Your task to perform on an android device: Go to notification settings Image 0: 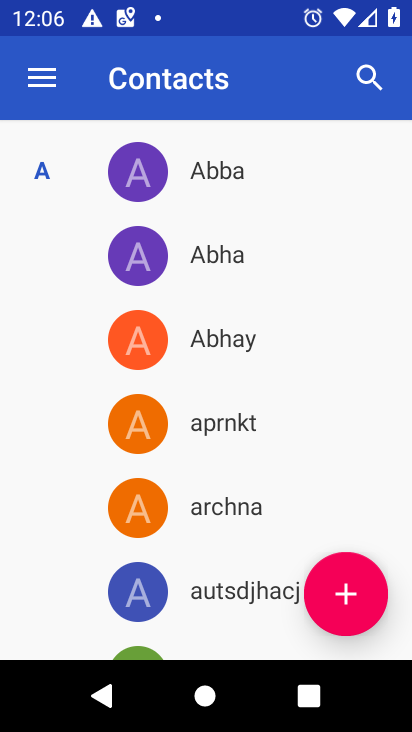
Step 0: press back button
Your task to perform on an android device: Go to notification settings Image 1: 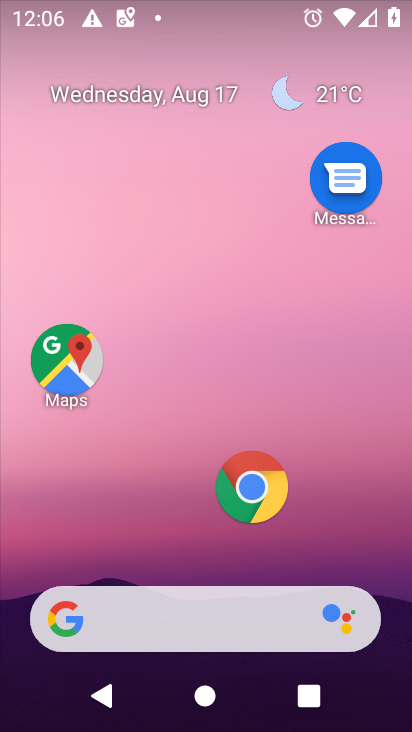
Step 1: drag from (147, 492) to (242, 38)
Your task to perform on an android device: Go to notification settings Image 2: 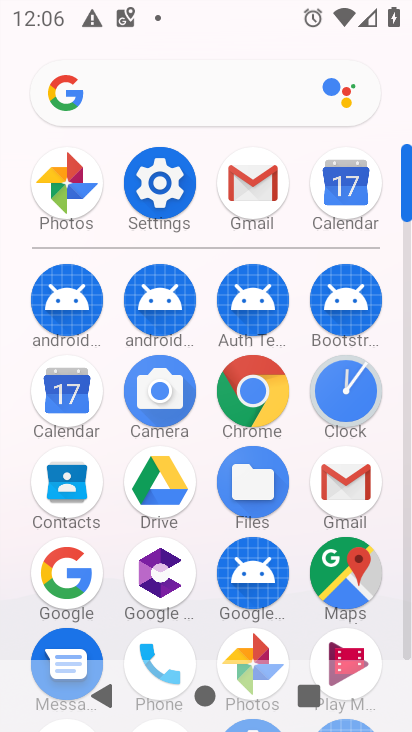
Step 2: click (172, 192)
Your task to perform on an android device: Go to notification settings Image 3: 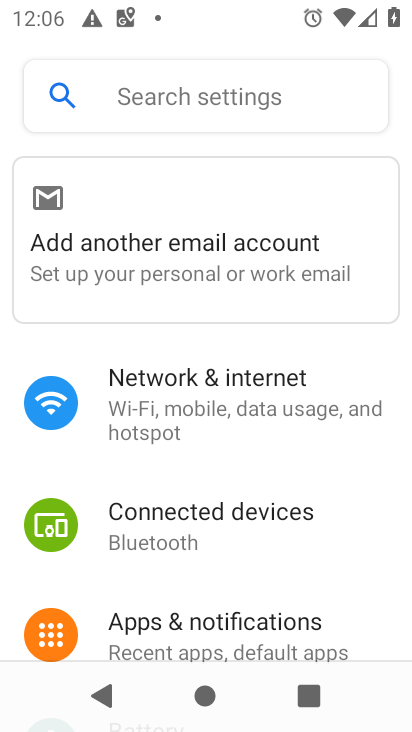
Step 3: click (238, 622)
Your task to perform on an android device: Go to notification settings Image 4: 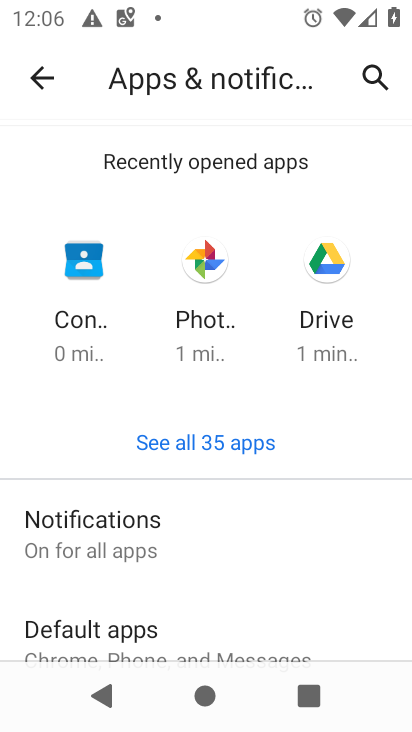
Step 4: task complete